Your task to perform on an android device: What's the weather today? Image 0: 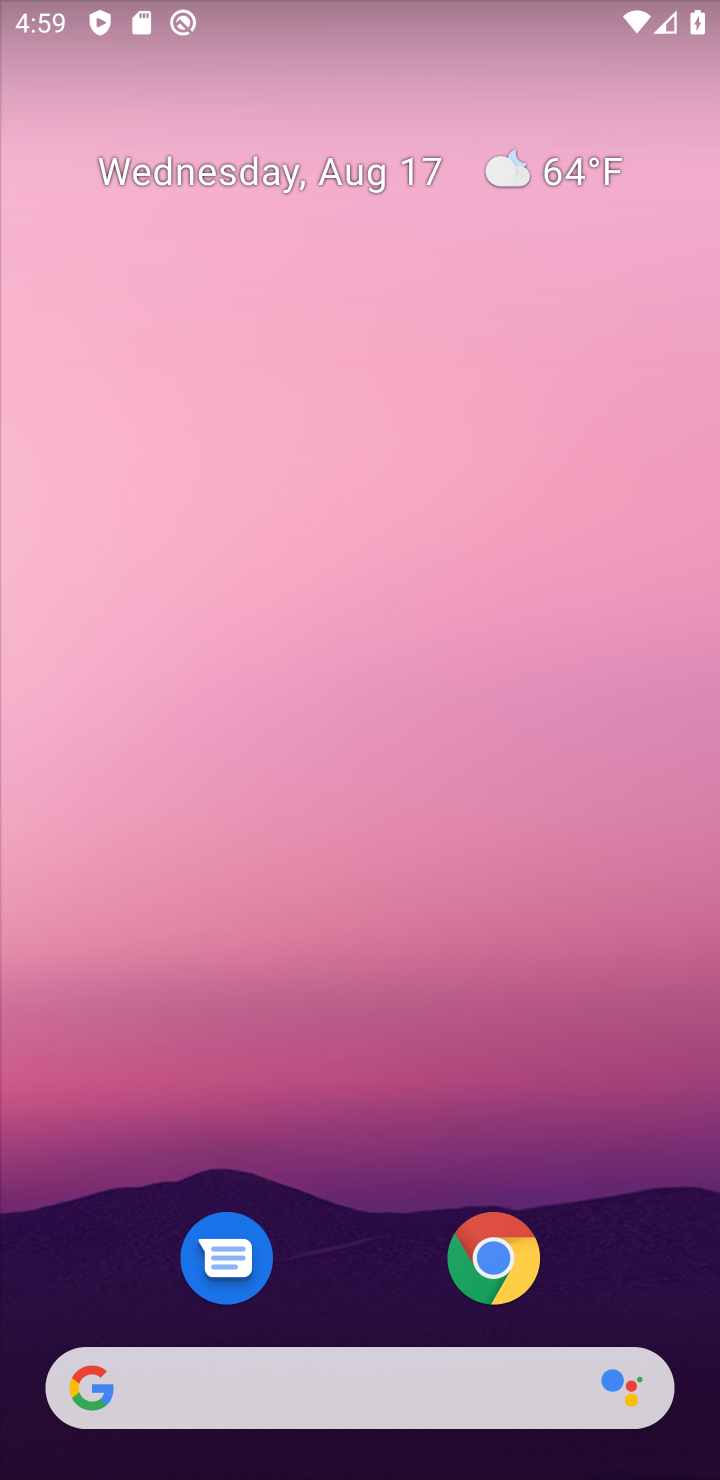
Step 0: click (586, 169)
Your task to perform on an android device: What's the weather today? Image 1: 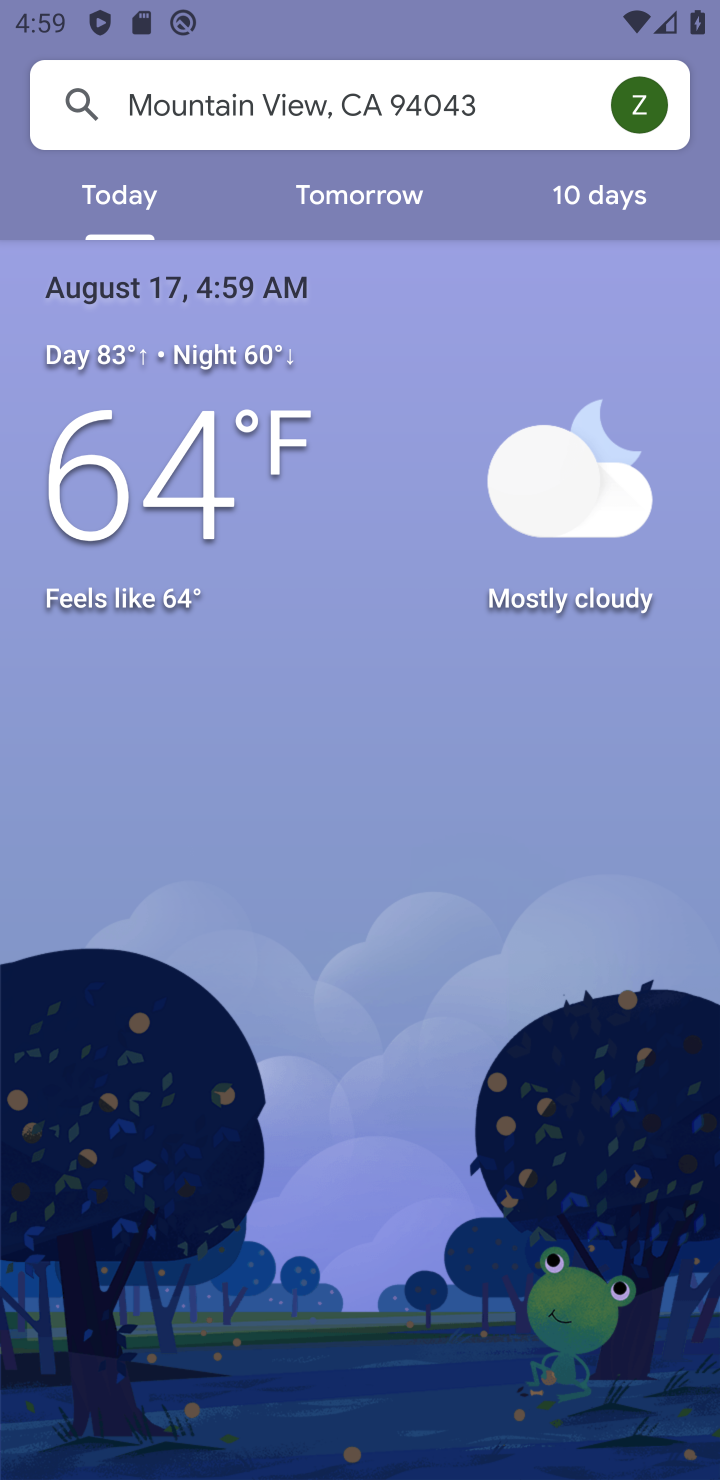
Step 1: task complete